Your task to perform on an android device: What is the recent news? Image 0: 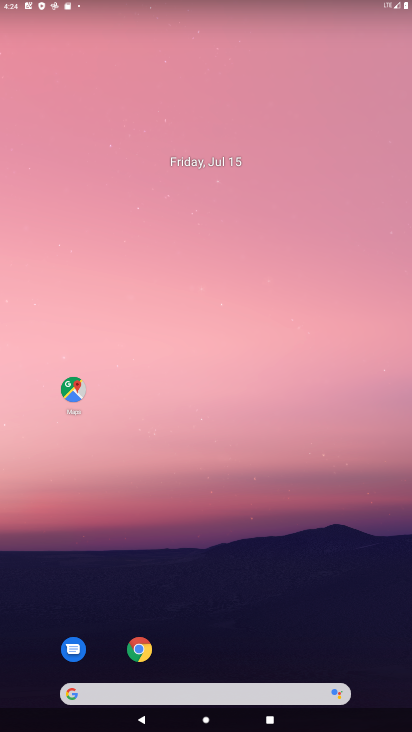
Step 0: drag from (230, 614) to (142, 46)
Your task to perform on an android device: What is the recent news? Image 1: 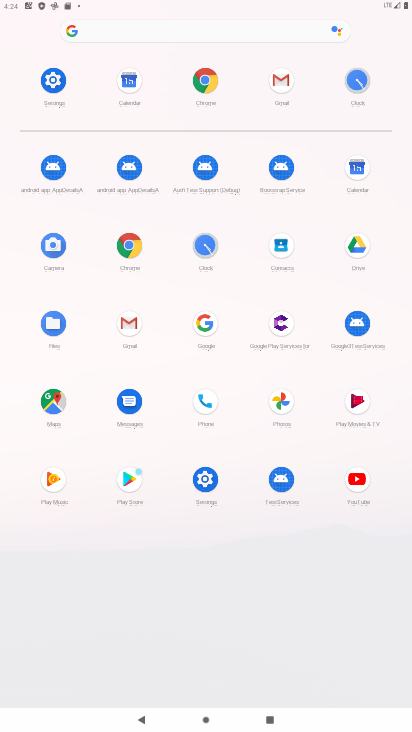
Step 1: click (204, 76)
Your task to perform on an android device: What is the recent news? Image 2: 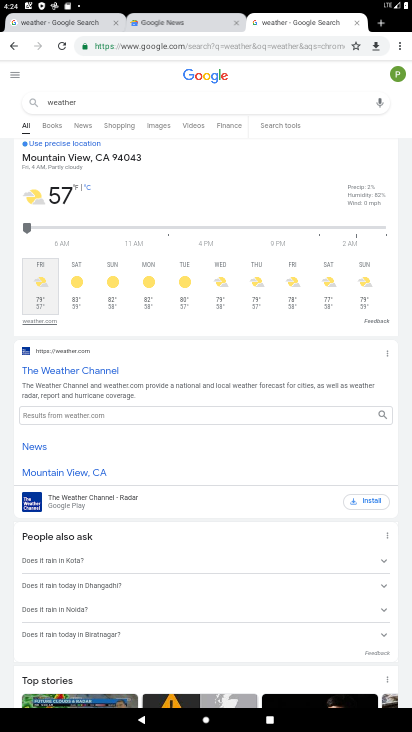
Step 2: click (220, 52)
Your task to perform on an android device: What is the recent news? Image 3: 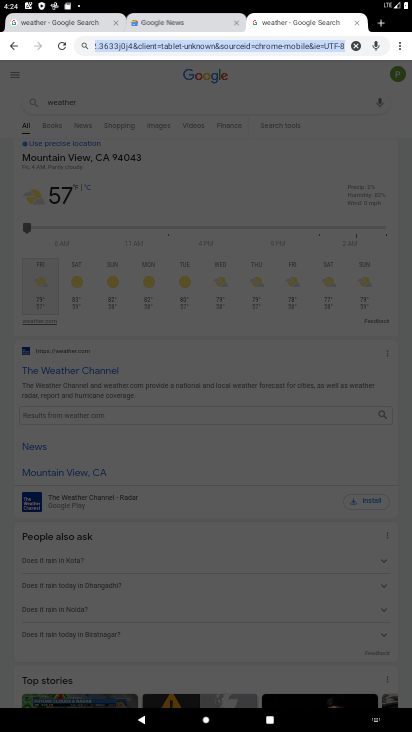
Step 3: type "news"
Your task to perform on an android device: What is the recent news? Image 4: 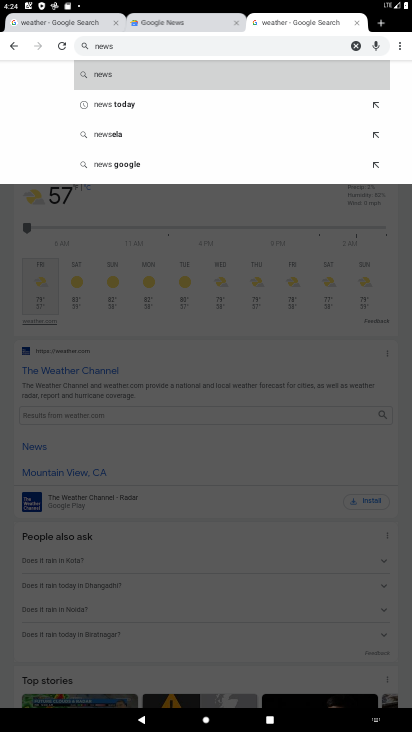
Step 4: click (95, 72)
Your task to perform on an android device: What is the recent news? Image 5: 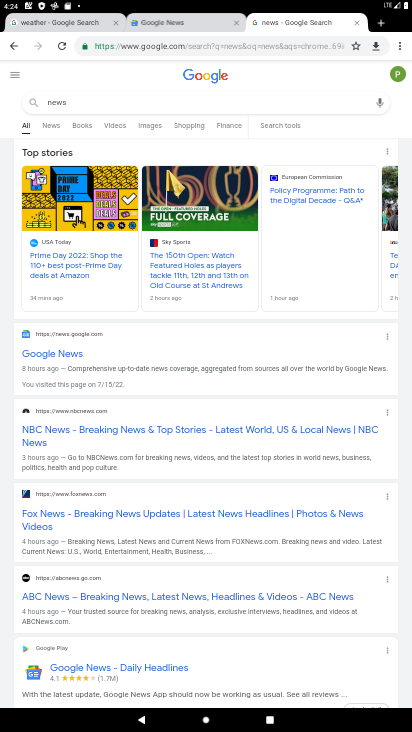
Step 5: click (47, 351)
Your task to perform on an android device: What is the recent news? Image 6: 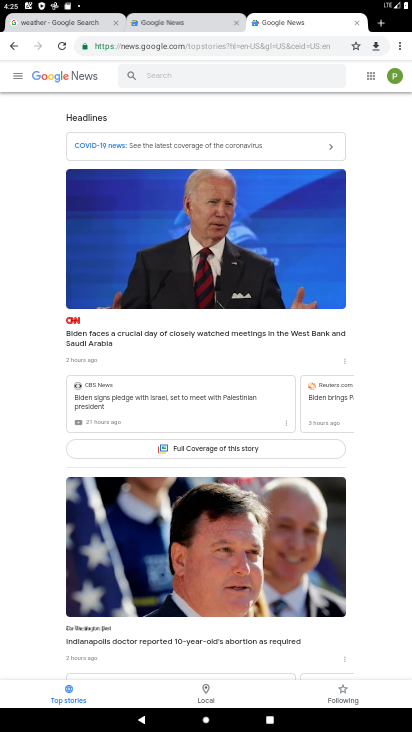
Step 6: task complete